Your task to perform on an android device: change notifications settings Image 0: 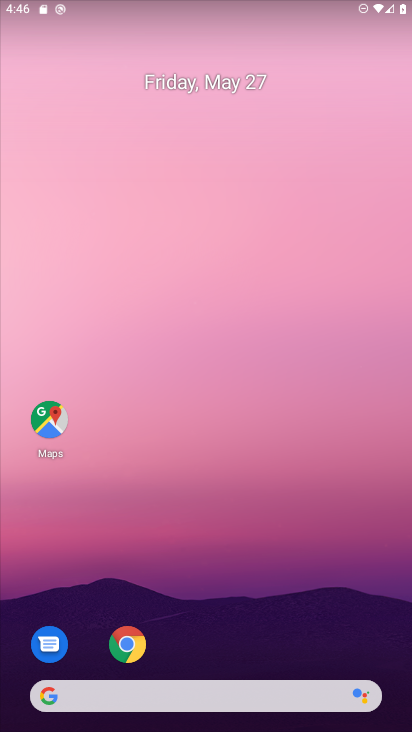
Step 0: drag from (211, 567) to (209, 42)
Your task to perform on an android device: change notifications settings Image 1: 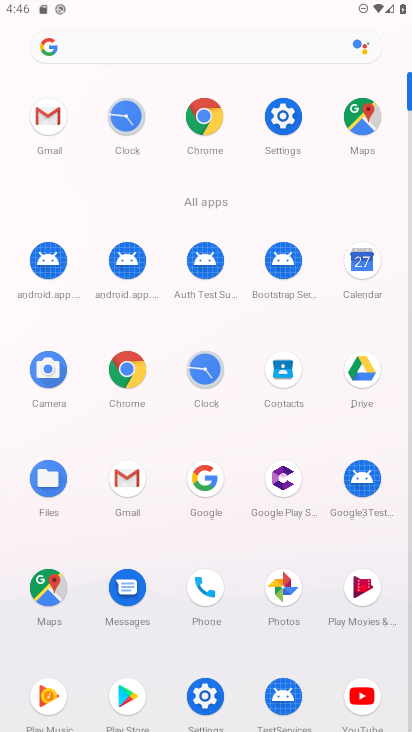
Step 1: click (280, 115)
Your task to perform on an android device: change notifications settings Image 2: 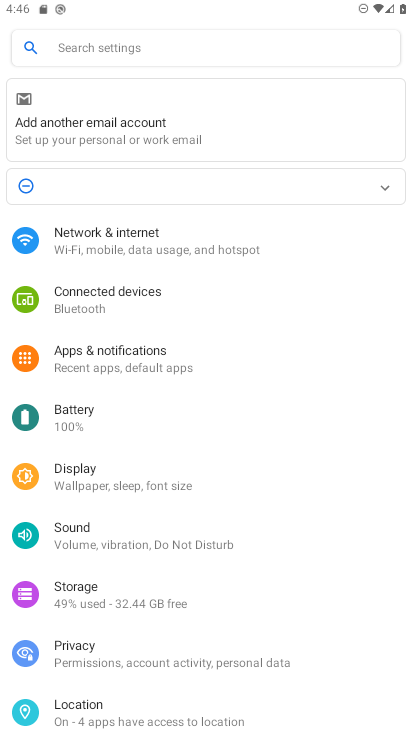
Step 2: click (120, 373)
Your task to perform on an android device: change notifications settings Image 3: 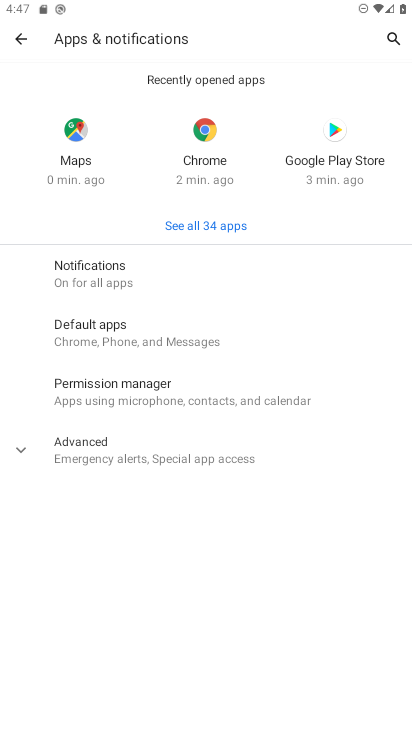
Step 3: click (157, 298)
Your task to perform on an android device: change notifications settings Image 4: 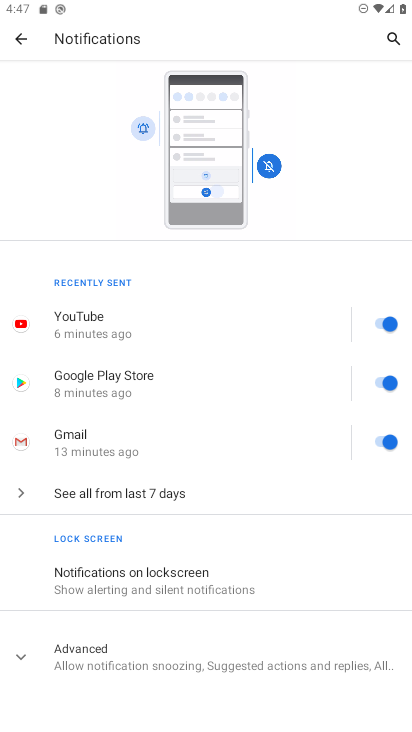
Step 4: click (106, 585)
Your task to perform on an android device: change notifications settings Image 5: 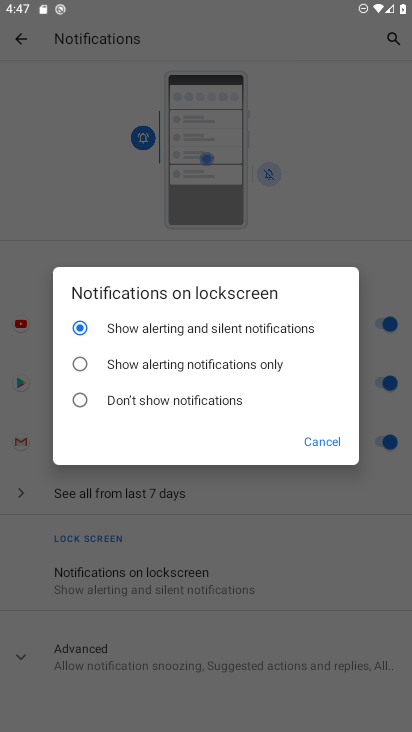
Step 5: click (318, 445)
Your task to perform on an android device: change notifications settings Image 6: 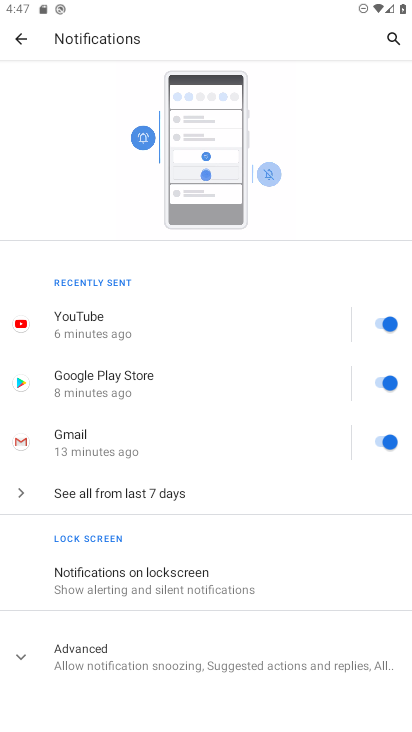
Step 6: click (138, 667)
Your task to perform on an android device: change notifications settings Image 7: 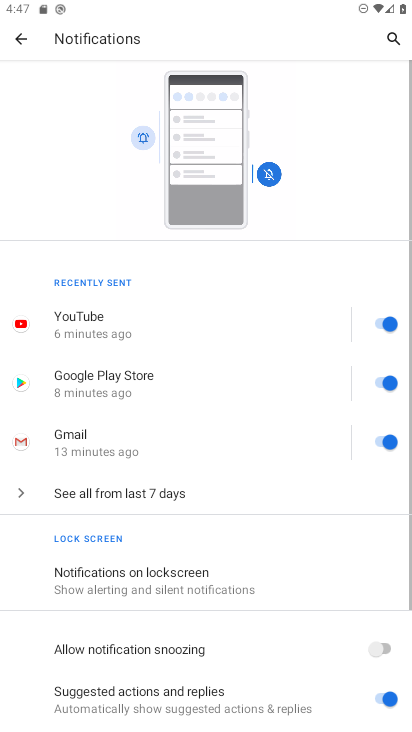
Step 7: drag from (138, 667) to (212, 302)
Your task to perform on an android device: change notifications settings Image 8: 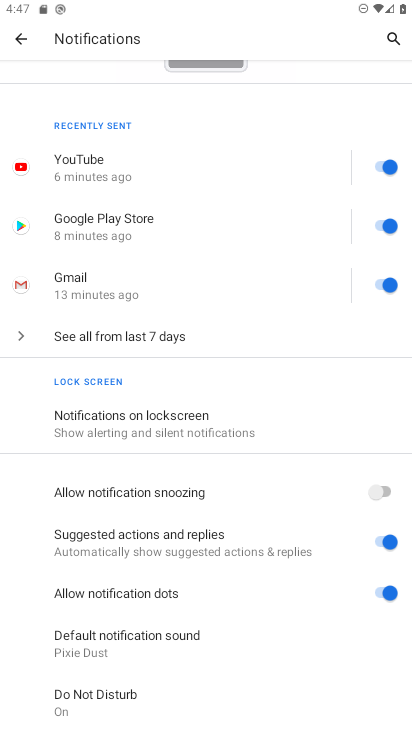
Step 8: click (388, 598)
Your task to perform on an android device: change notifications settings Image 9: 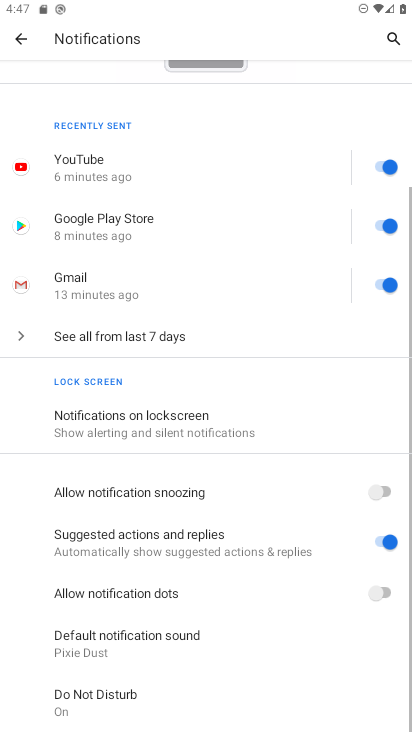
Step 9: click (387, 536)
Your task to perform on an android device: change notifications settings Image 10: 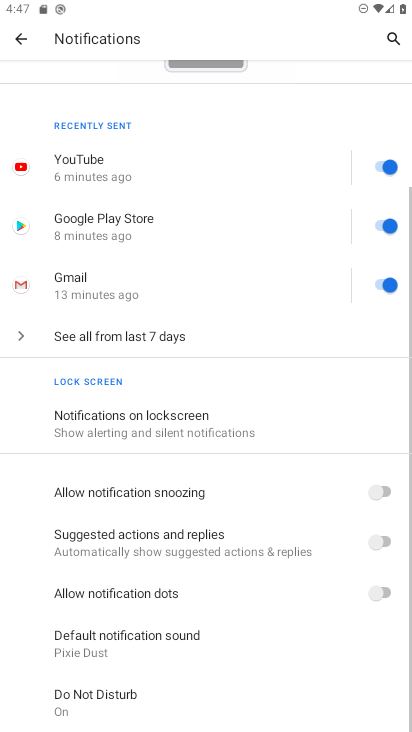
Step 10: task complete